Your task to perform on an android device: Search for usb-a to usb-b on costco, select the first entry, and add it to the cart. Image 0: 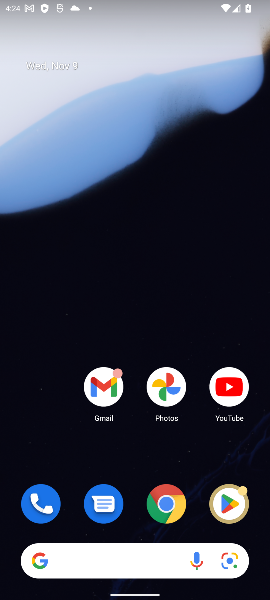
Step 0: click (143, 556)
Your task to perform on an android device: Search for usb-a to usb-b on costco, select the first entry, and add it to the cart. Image 1: 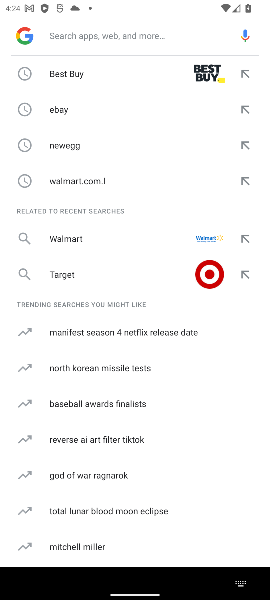
Step 1: type "costco"
Your task to perform on an android device: Search for usb-a to usb-b on costco, select the first entry, and add it to the cart. Image 2: 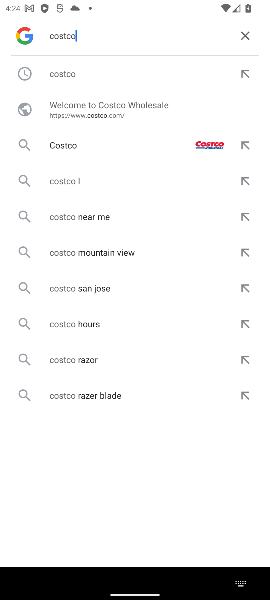
Step 2: click (135, 144)
Your task to perform on an android device: Search for usb-a to usb-b on costco, select the first entry, and add it to the cart. Image 3: 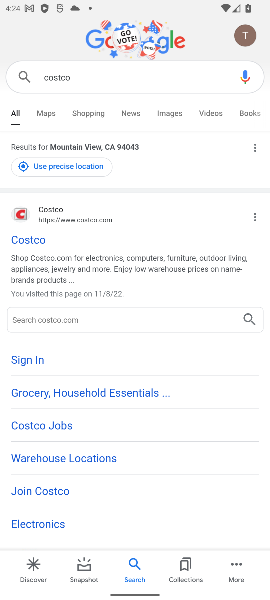
Step 3: click (35, 237)
Your task to perform on an android device: Search for usb-a to usb-b on costco, select the first entry, and add it to the cart. Image 4: 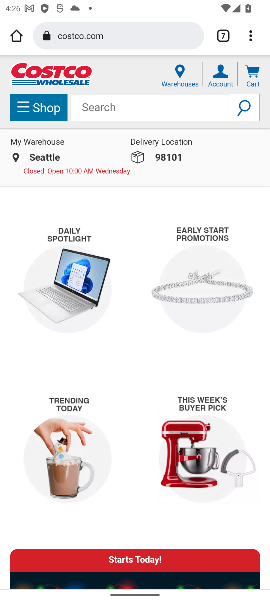
Step 4: click (203, 103)
Your task to perform on an android device: Search for usb-a to usb-b on costco, select the first entry, and add it to the cart. Image 5: 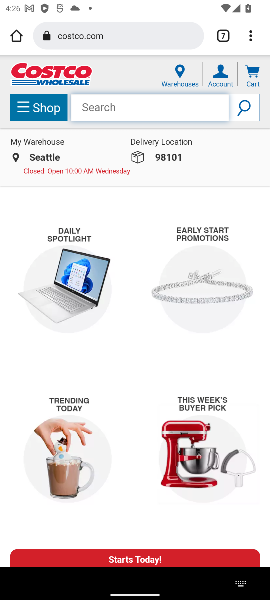
Step 5: type " usb-a to usb-b"
Your task to perform on an android device: Search for usb-a to usb-b on costco, select the first entry, and add it to the cart. Image 6: 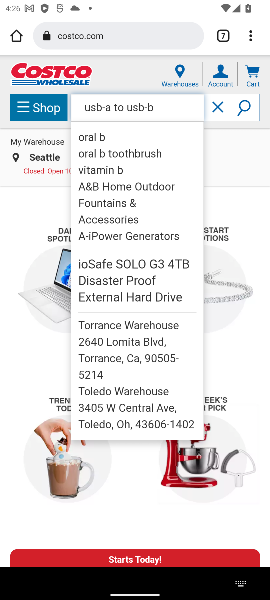
Step 6: click (245, 108)
Your task to perform on an android device: Search for usb-a to usb-b on costco, select the first entry, and add it to the cart. Image 7: 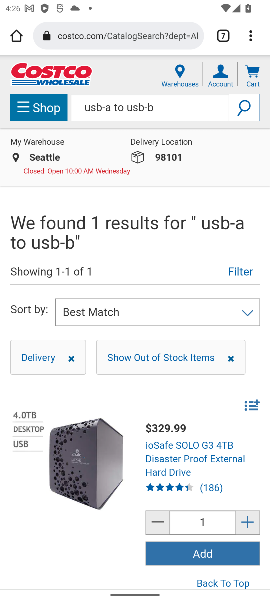
Step 7: click (194, 548)
Your task to perform on an android device: Search for usb-a to usb-b on costco, select the first entry, and add it to the cart. Image 8: 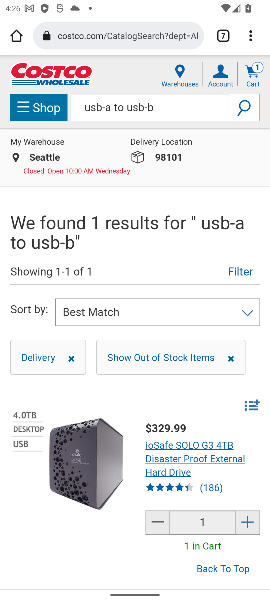
Step 8: task complete